Your task to perform on an android device: set default search engine in the chrome app Image 0: 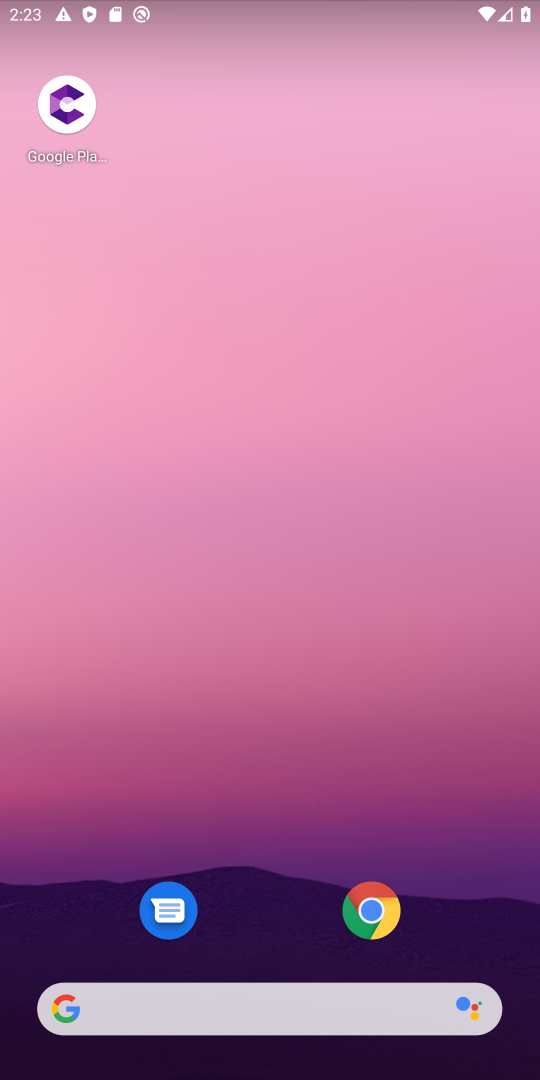
Step 0: click (350, 911)
Your task to perform on an android device: set default search engine in the chrome app Image 1: 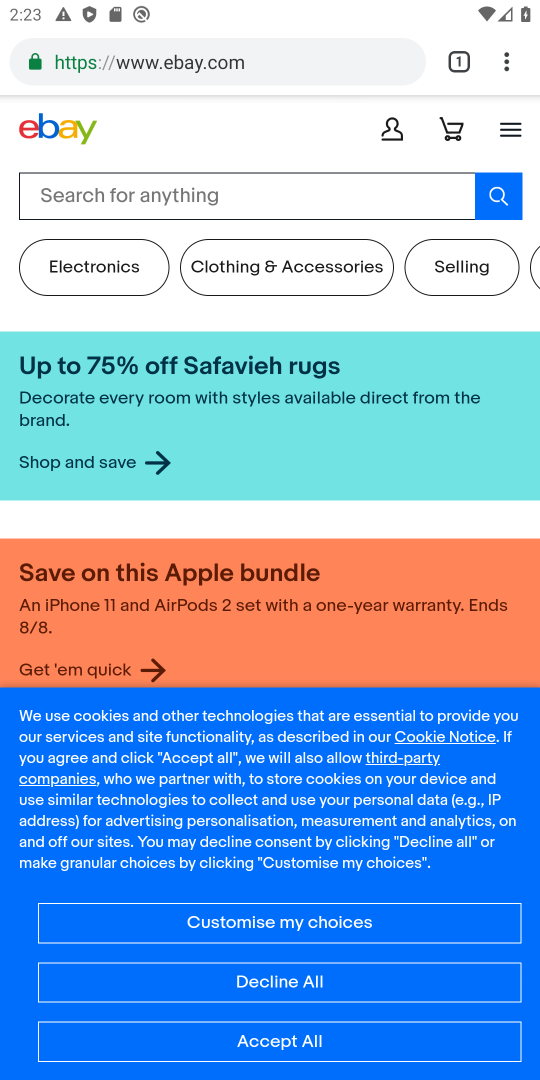
Step 1: click (501, 62)
Your task to perform on an android device: set default search engine in the chrome app Image 2: 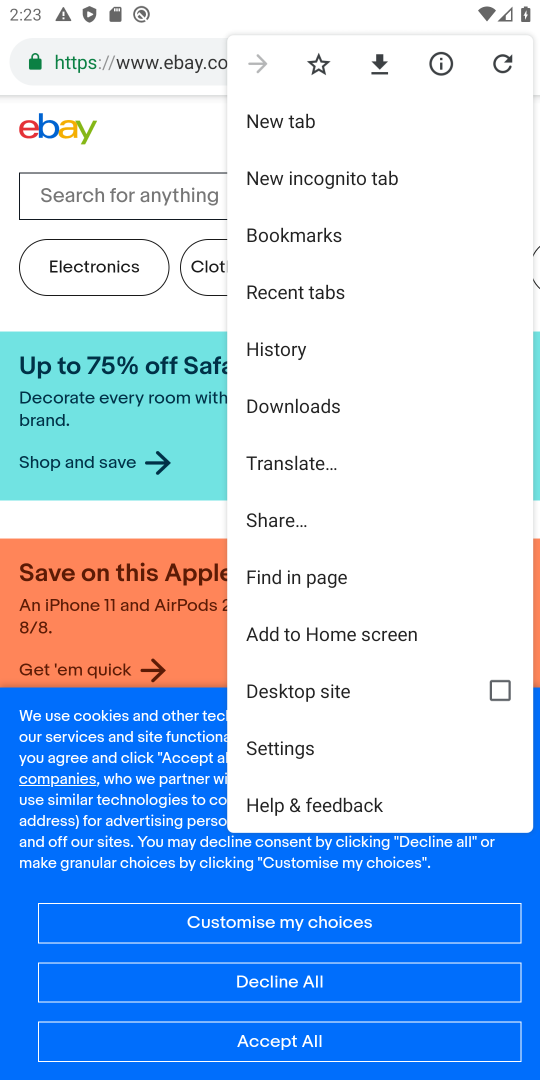
Step 2: click (296, 758)
Your task to perform on an android device: set default search engine in the chrome app Image 3: 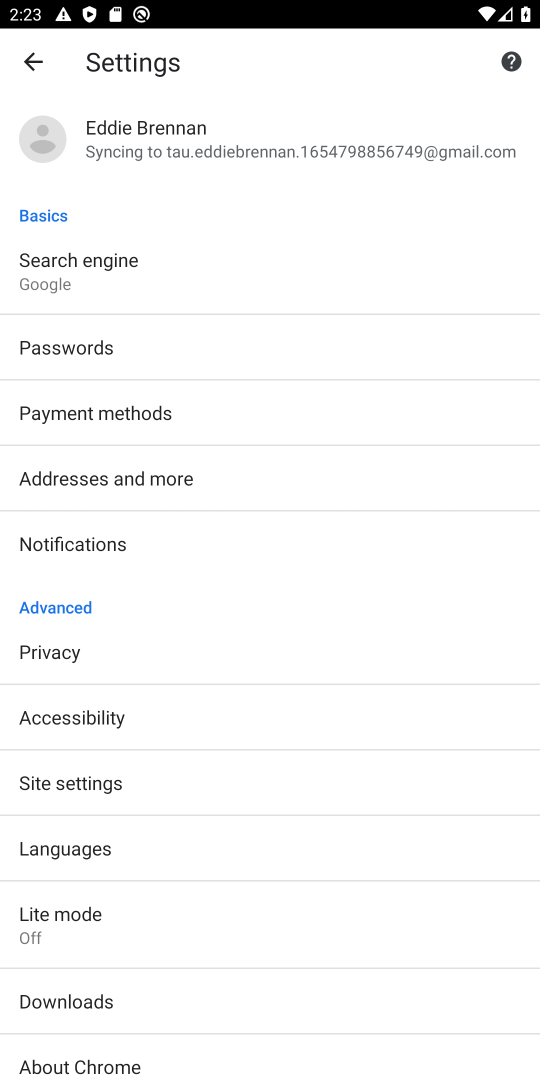
Step 3: click (133, 259)
Your task to perform on an android device: set default search engine in the chrome app Image 4: 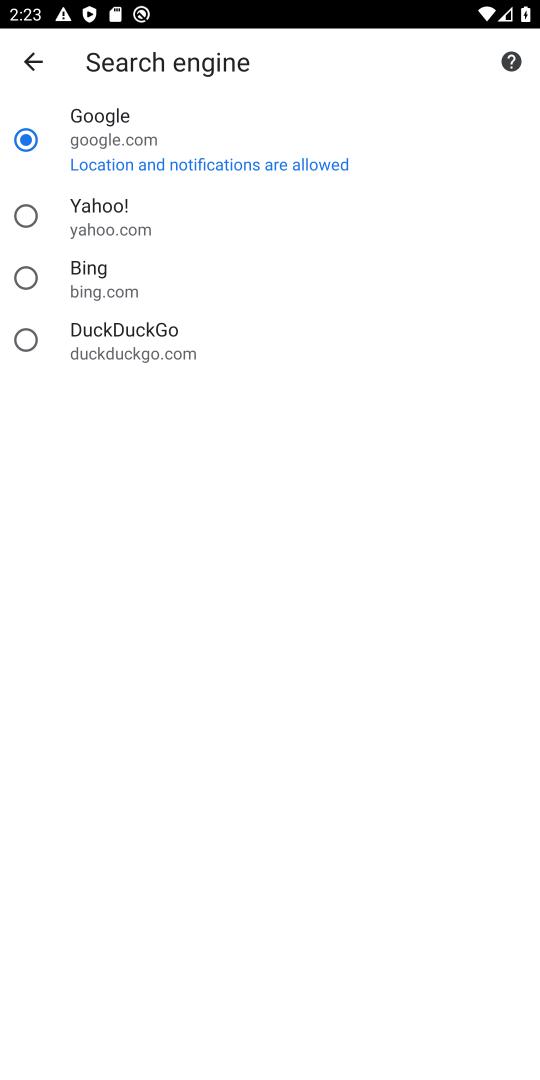
Step 4: click (83, 206)
Your task to perform on an android device: set default search engine in the chrome app Image 5: 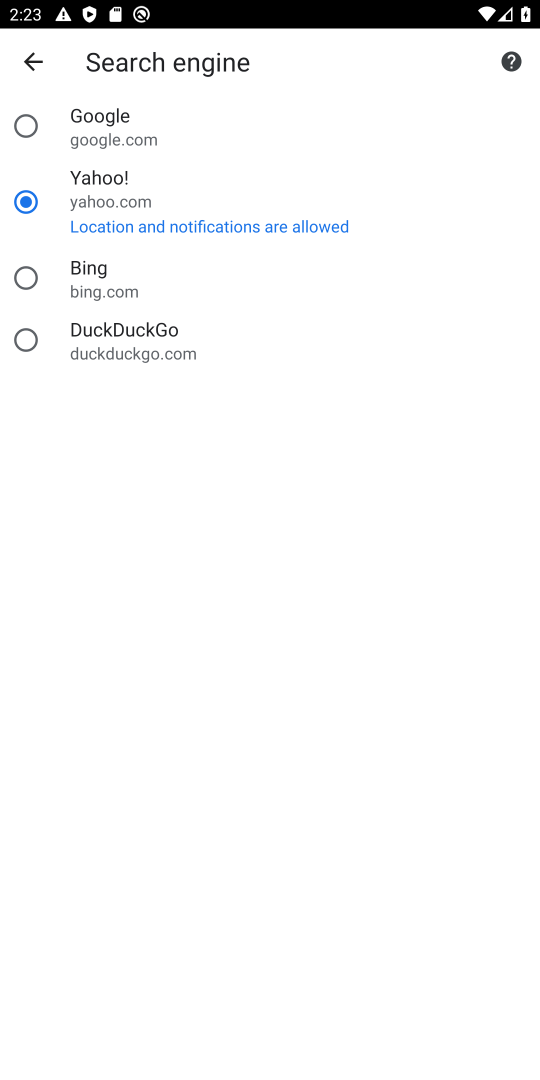
Step 5: task complete